Your task to perform on an android device: Search for the best coffee tables on Crate & Barrel Image 0: 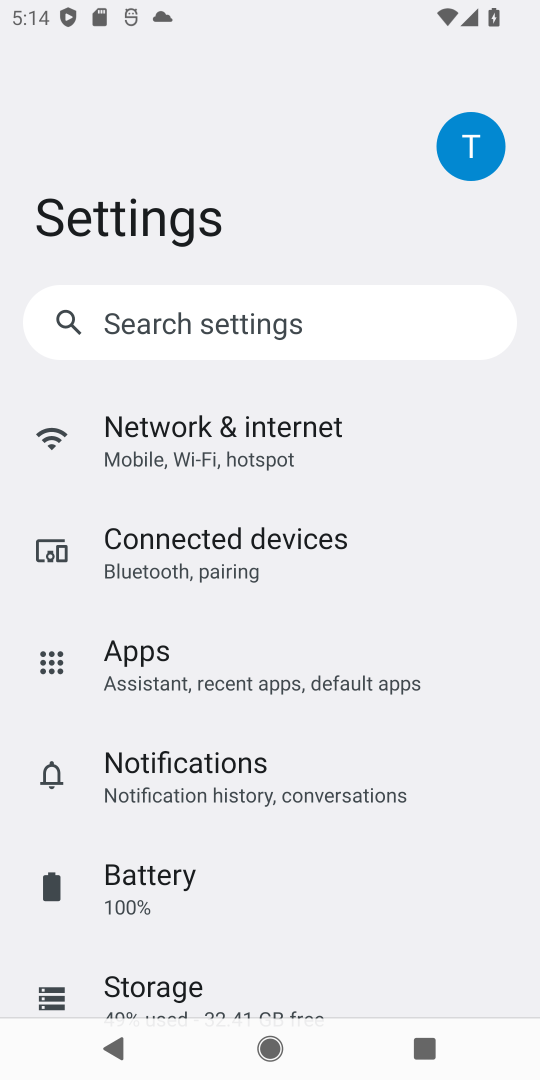
Step 0: press home button
Your task to perform on an android device: Search for the best coffee tables on Crate & Barrel Image 1: 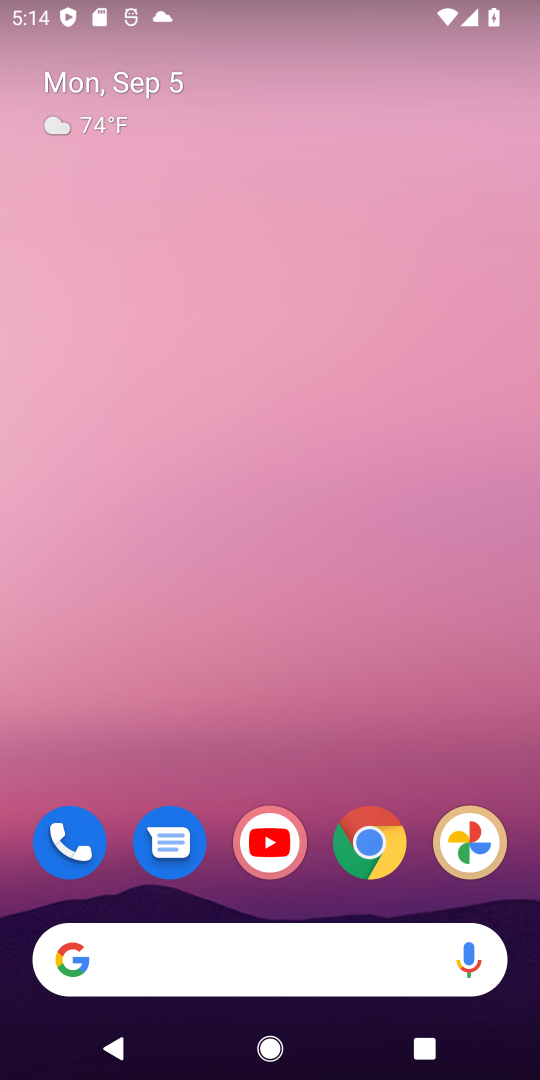
Step 1: click (368, 844)
Your task to perform on an android device: Search for the best coffee tables on Crate & Barrel Image 2: 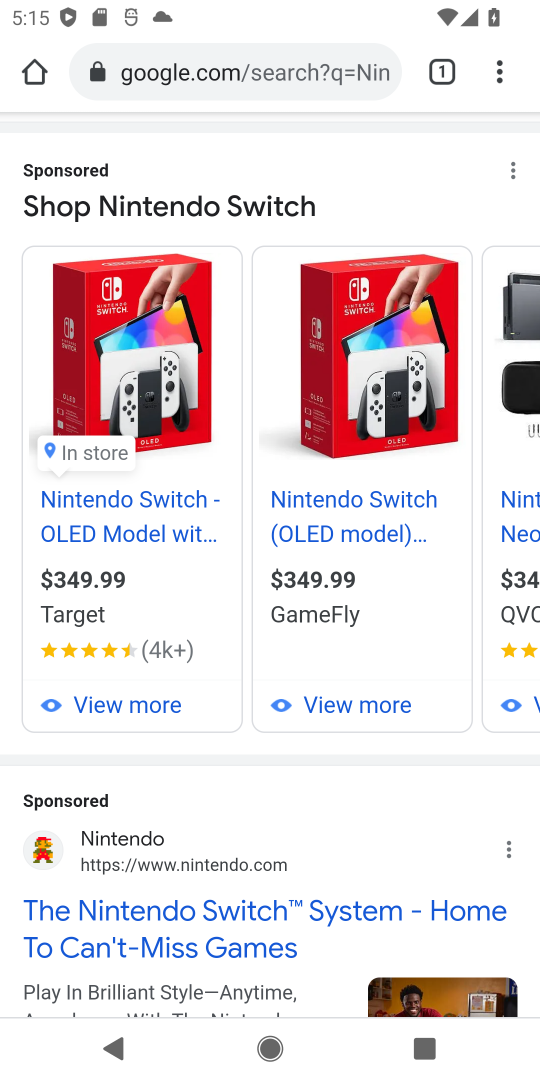
Step 2: click (333, 86)
Your task to perform on an android device: Search for the best coffee tables on Crate & Barrel Image 3: 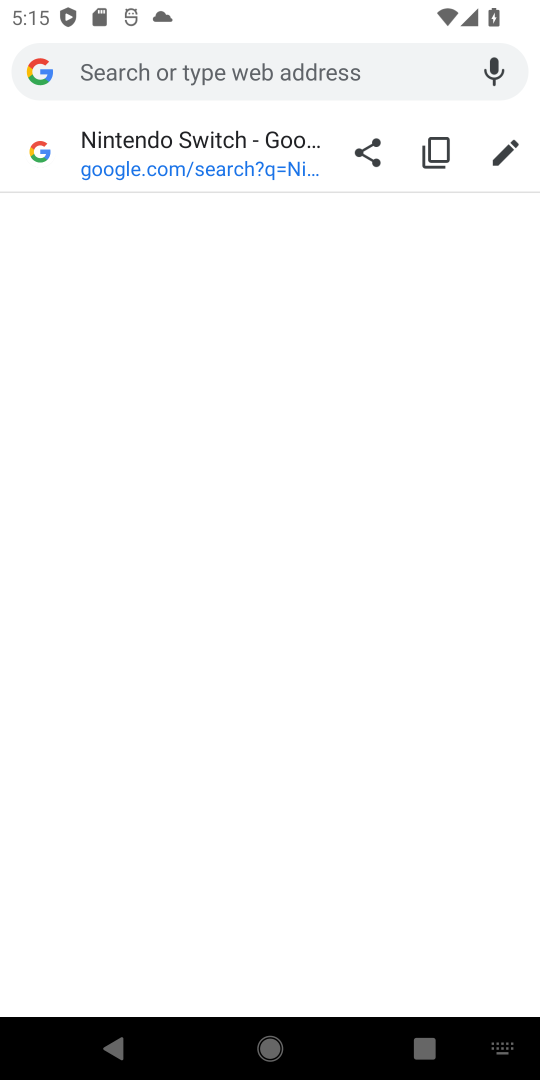
Step 3: click (178, 68)
Your task to perform on an android device: Search for the best coffee tables on Crate & Barrel Image 4: 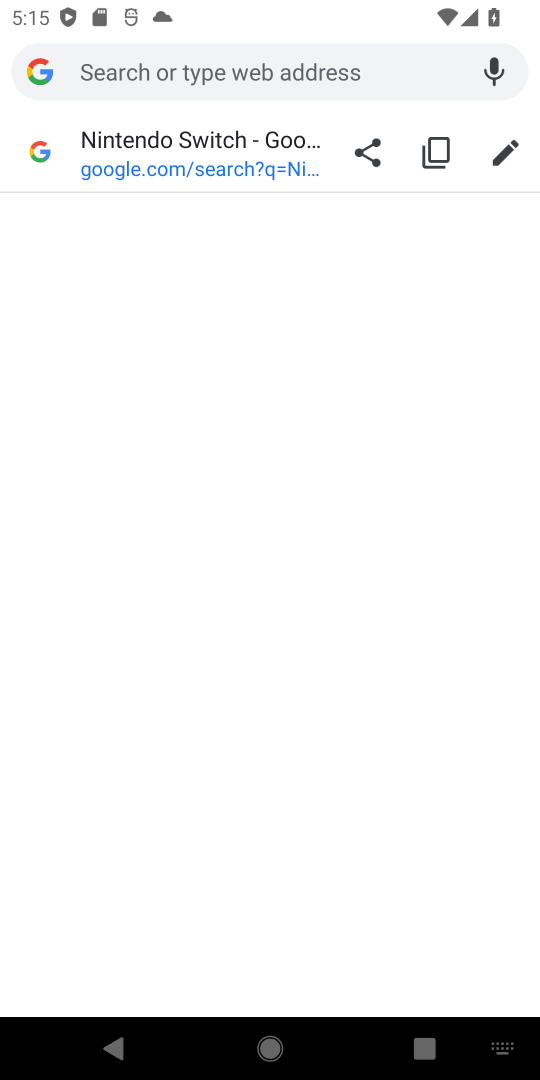
Step 4: type "Crate & Barrel"
Your task to perform on an android device: Search for the best coffee tables on Crate & Barrel Image 5: 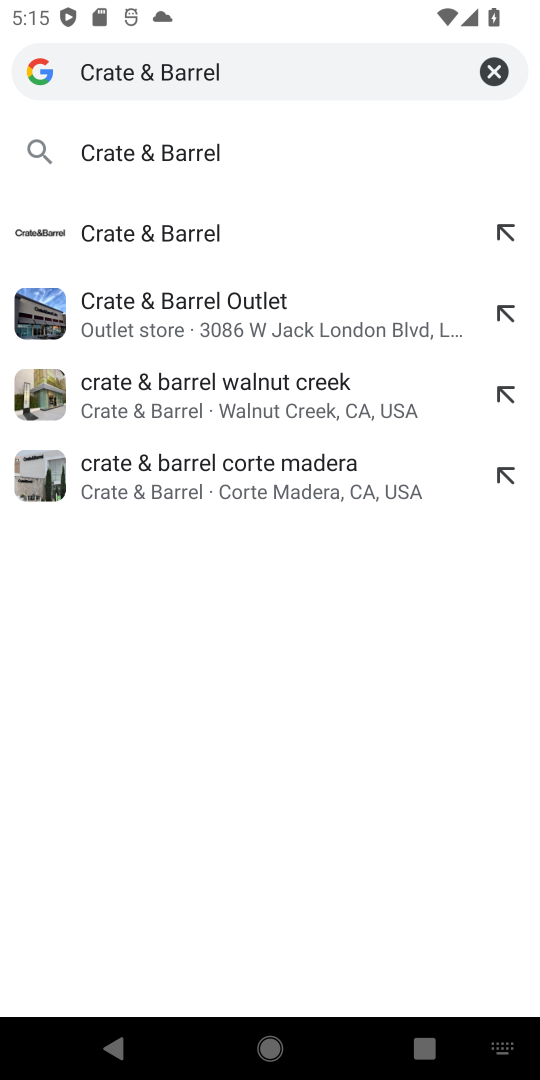
Step 5: click (176, 228)
Your task to perform on an android device: Search for the best coffee tables on Crate & Barrel Image 6: 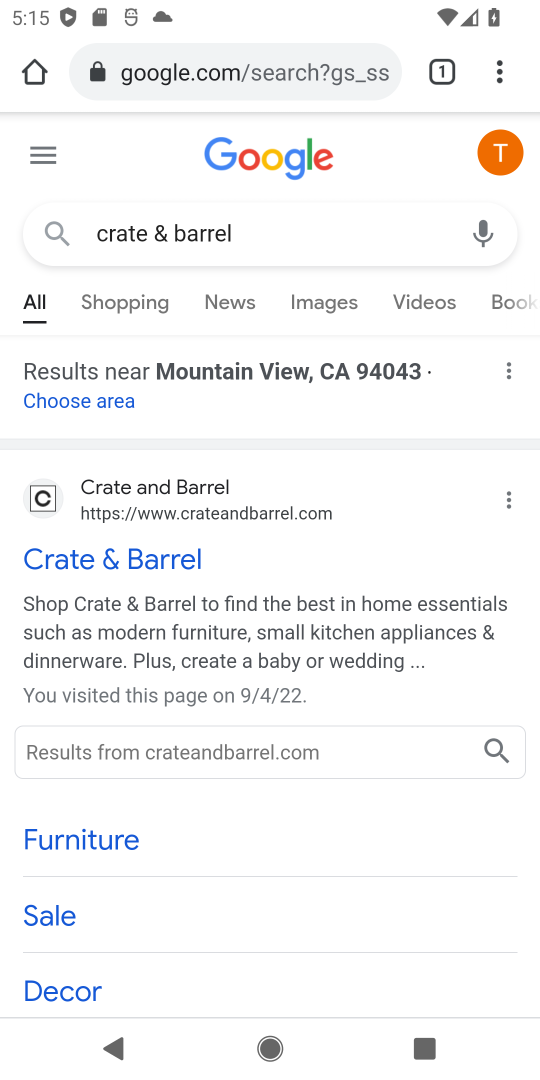
Step 6: click (171, 577)
Your task to perform on an android device: Search for the best coffee tables on Crate & Barrel Image 7: 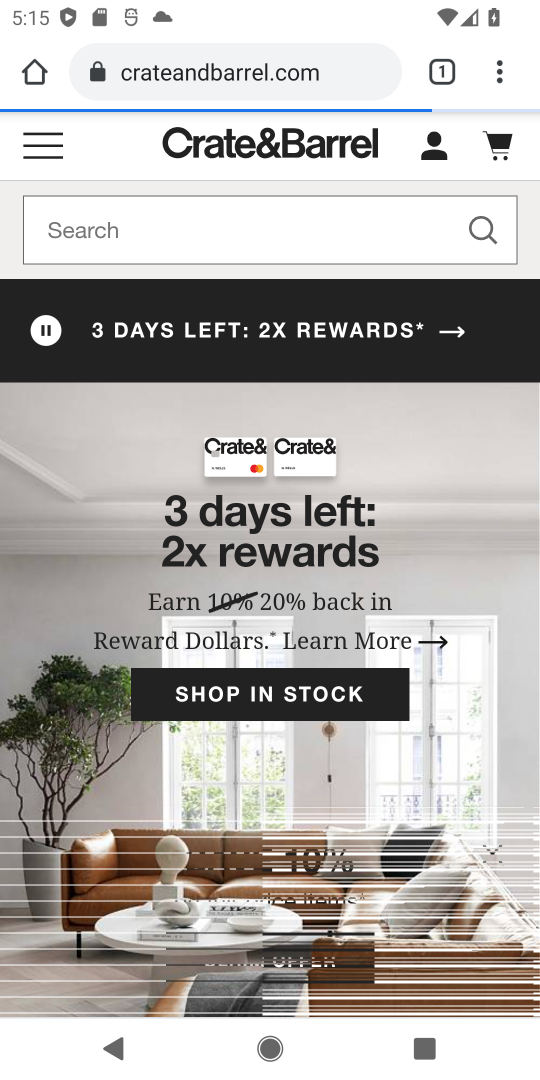
Step 7: click (284, 240)
Your task to perform on an android device: Search for the best coffee tables on Crate & Barrel Image 8: 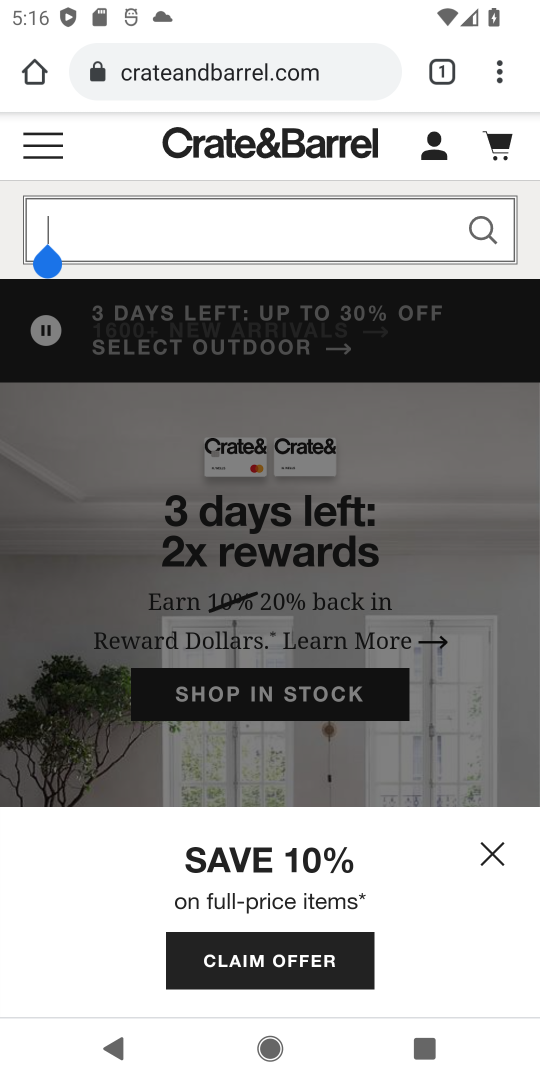
Step 8: type "best coffee tables"
Your task to perform on an android device: Search for the best coffee tables on Crate & Barrel Image 9: 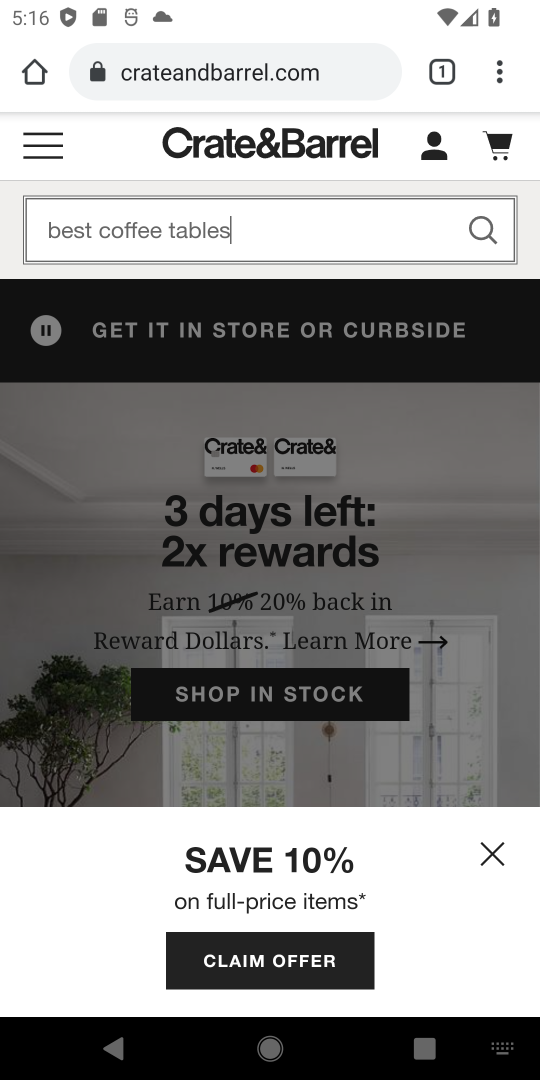
Step 9: click (485, 233)
Your task to perform on an android device: Search for the best coffee tables on Crate & Barrel Image 10: 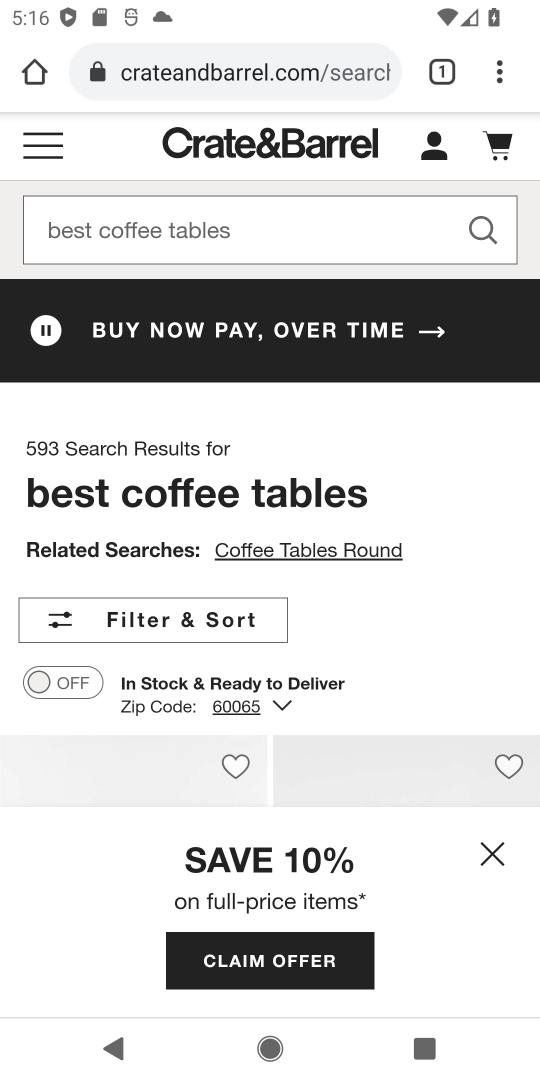
Step 10: click (492, 857)
Your task to perform on an android device: Search for the best coffee tables on Crate & Barrel Image 11: 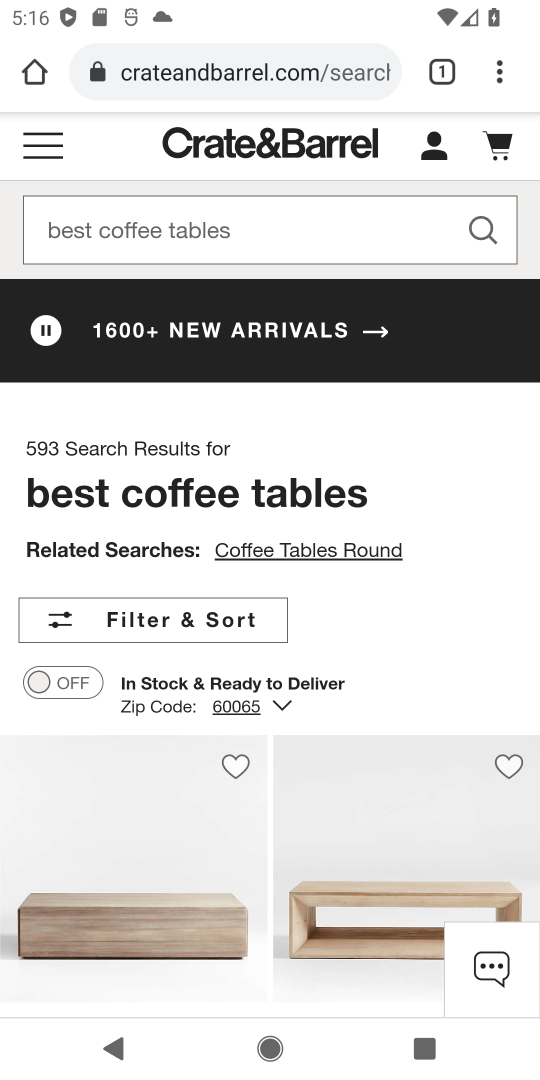
Step 11: task complete